Your task to perform on an android device: choose inbox layout in the gmail app Image 0: 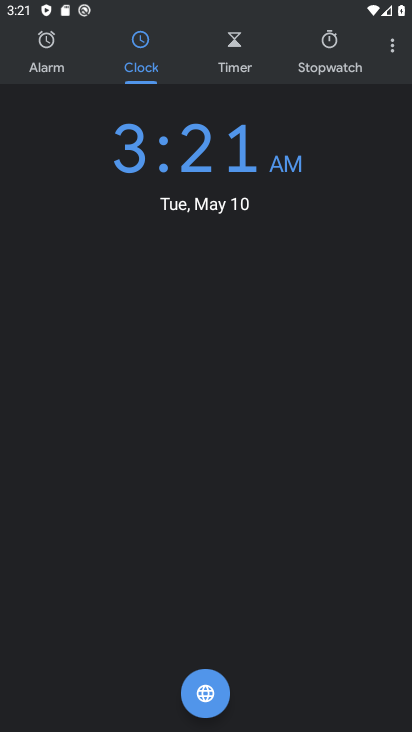
Step 0: press home button
Your task to perform on an android device: choose inbox layout in the gmail app Image 1: 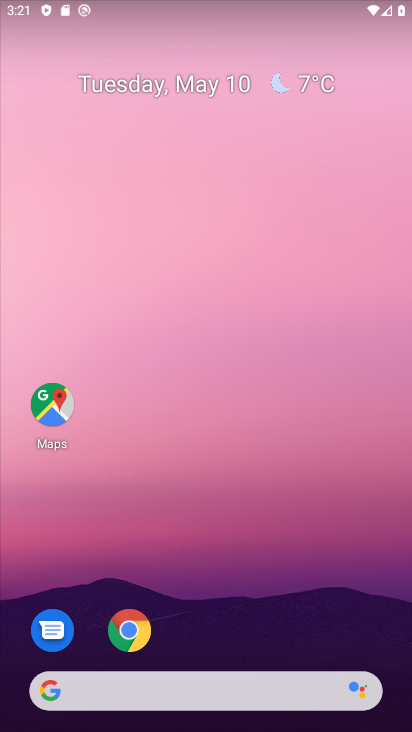
Step 1: drag from (241, 654) to (174, 132)
Your task to perform on an android device: choose inbox layout in the gmail app Image 2: 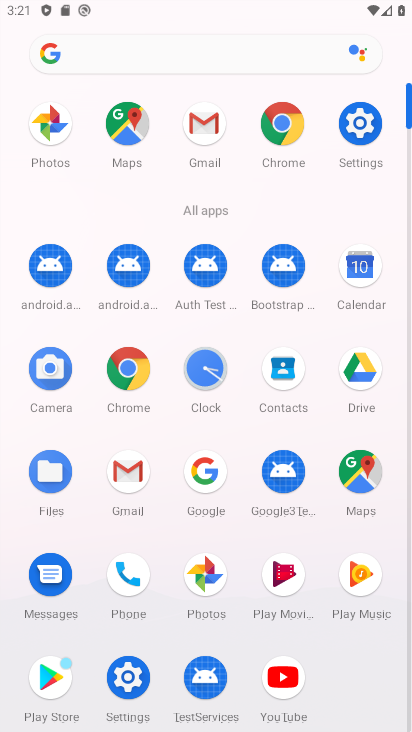
Step 2: click (128, 469)
Your task to perform on an android device: choose inbox layout in the gmail app Image 3: 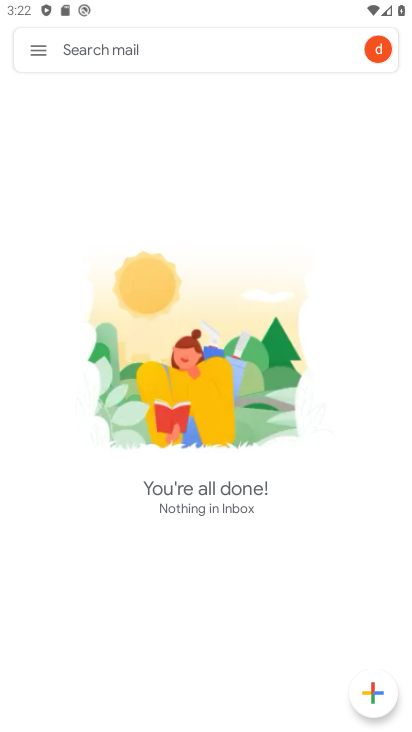
Step 3: press home button
Your task to perform on an android device: choose inbox layout in the gmail app Image 4: 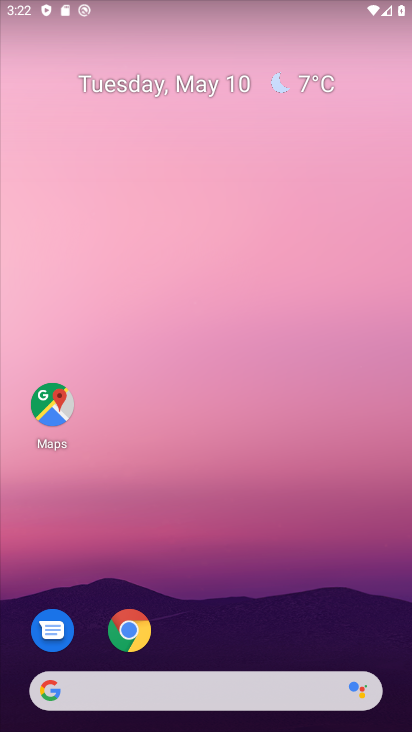
Step 4: drag from (201, 674) to (180, 257)
Your task to perform on an android device: choose inbox layout in the gmail app Image 5: 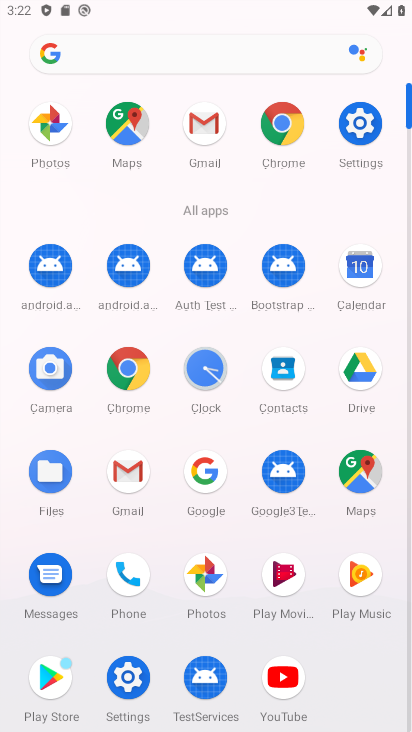
Step 5: click (118, 492)
Your task to perform on an android device: choose inbox layout in the gmail app Image 6: 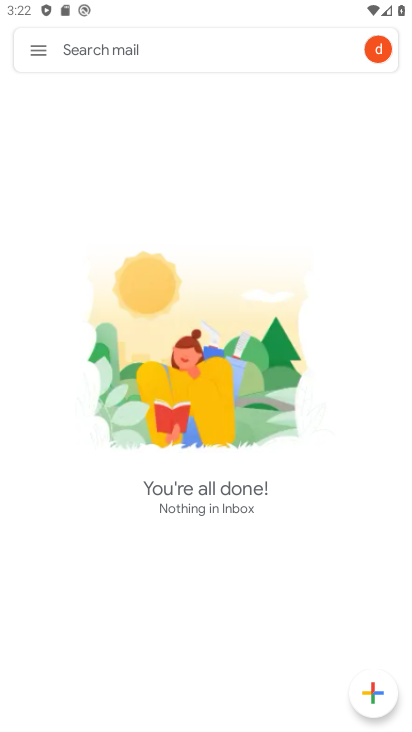
Step 6: click (40, 44)
Your task to perform on an android device: choose inbox layout in the gmail app Image 7: 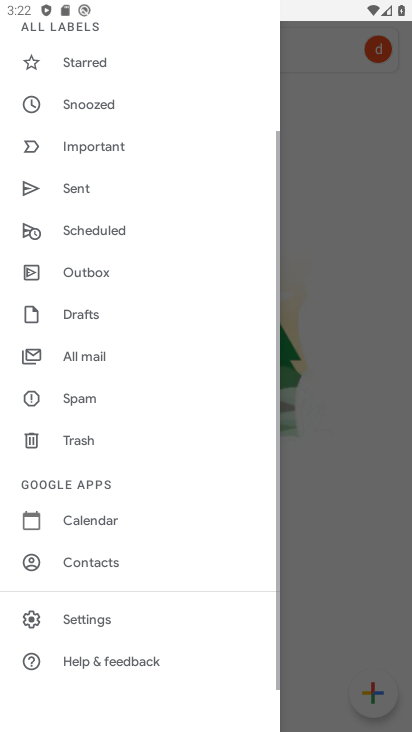
Step 7: click (76, 615)
Your task to perform on an android device: choose inbox layout in the gmail app Image 8: 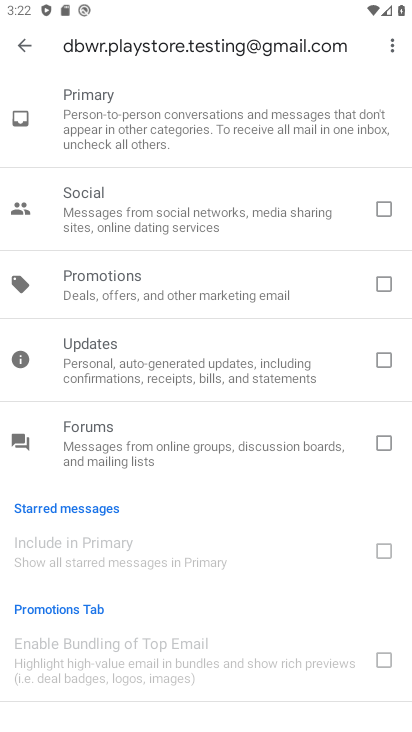
Step 8: click (28, 36)
Your task to perform on an android device: choose inbox layout in the gmail app Image 9: 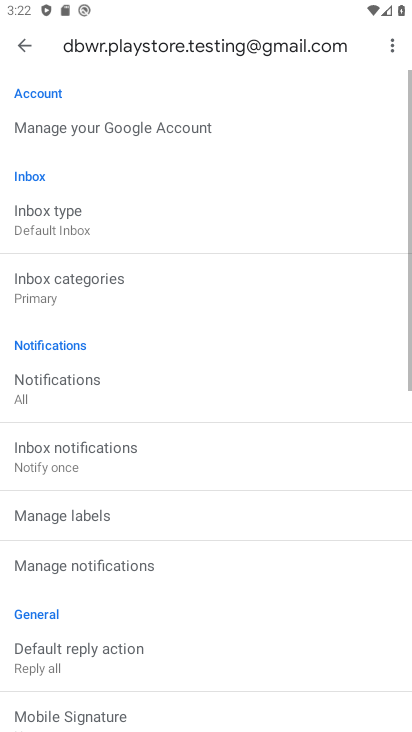
Step 9: click (75, 206)
Your task to perform on an android device: choose inbox layout in the gmail app Image 10: 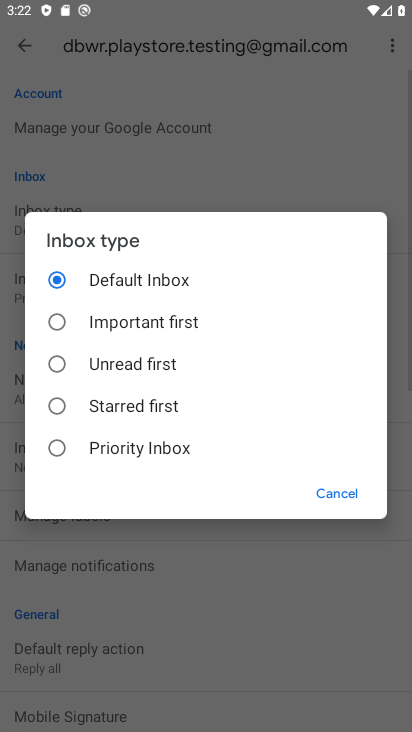
Step 10: click (73, 453)
Your task to perform on an android device: choose inbox layout in the gmail app Image 11: 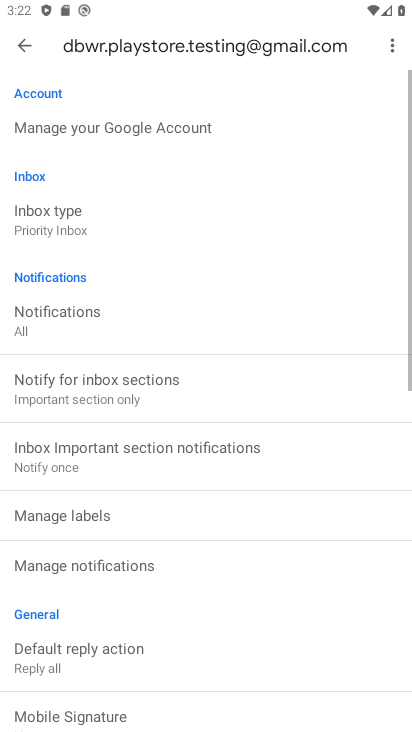
Step 11: task complete